Your task to perform on an android device: change the clock display to analog Image 0: 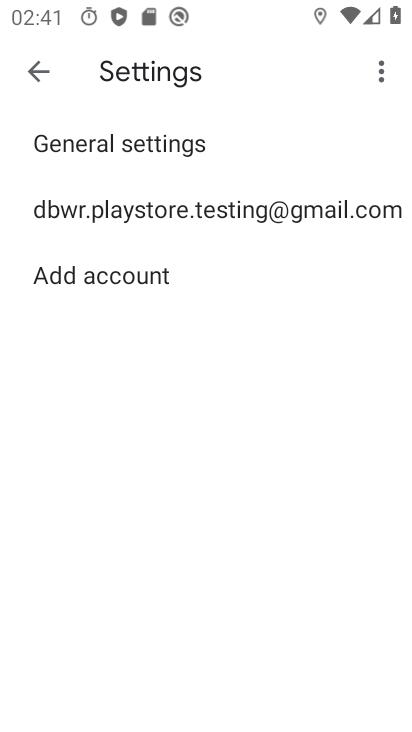
Step 0: press home button
Your task to perform on an android device: change the clock display to analog Image 1: 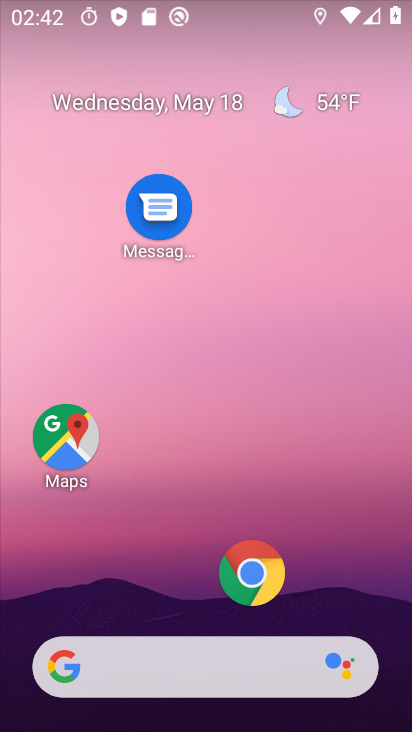
Step 1: drag from (149, 592) to (216, 201)
Your task to perform on an android device: change the clock display to analog Image 2: 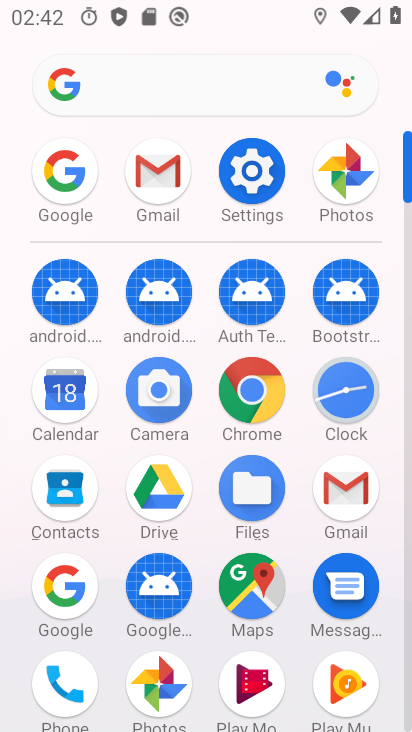
Step 2: click (344, 396)
Your task to perform on an android device: change the clock display to analog Image 3: 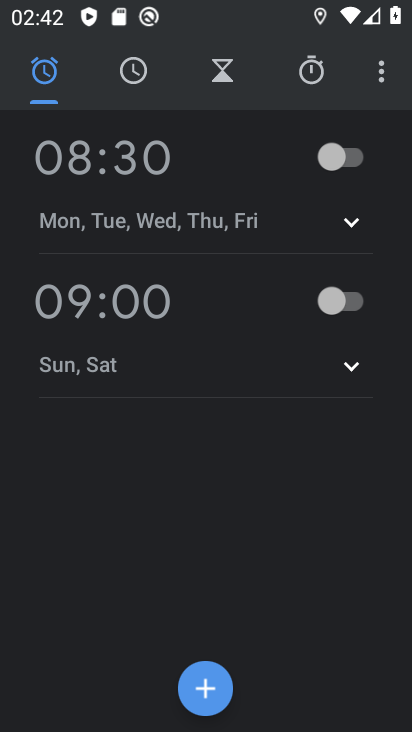
Step 3: click (376, 67)
Your task to perform on an android device: change the clock display to analog Image 4: 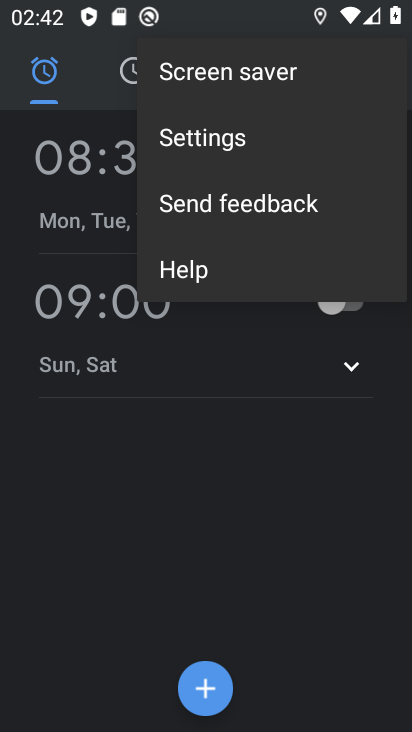
Step 4: click (246, 130)
Your task to perform on an android device: change the clock display to analog Image 5: 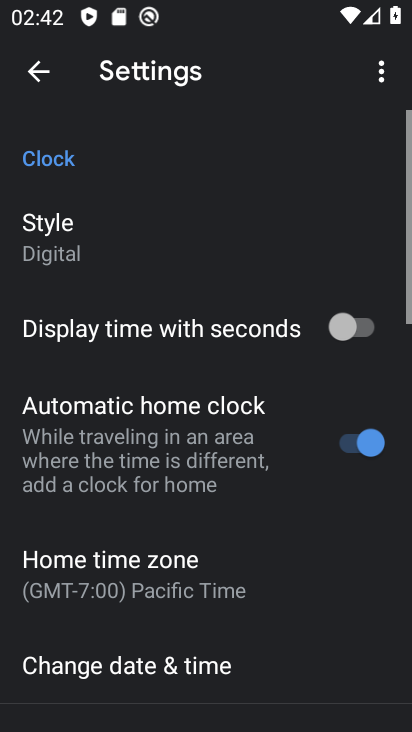
Step 5: click (93, 228)
Your task to perform on an android device: change the clock display to analog Image 6: 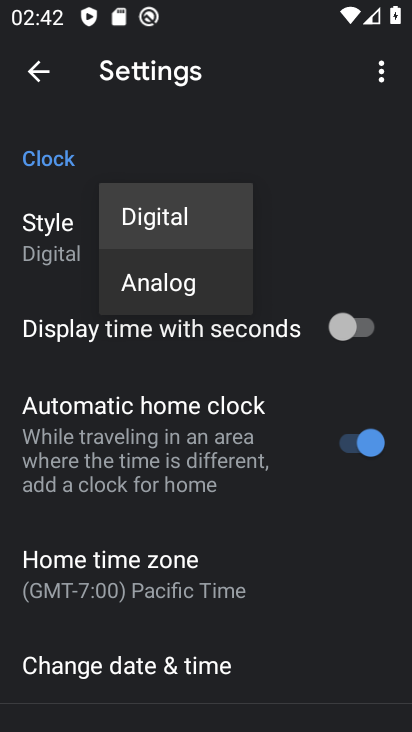
Step 6: click (145, 283)
Your task to perform on an android device: change the clock display to analog Image 7: 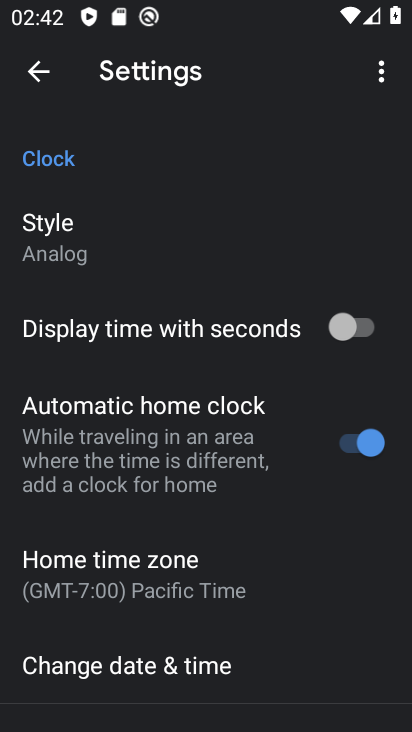
Step 7: task complete